Your task to perform on an android device: Search for "macbook pro 15 inch" on bestbuy, select the first entry, and add it to the cart. Image 0: 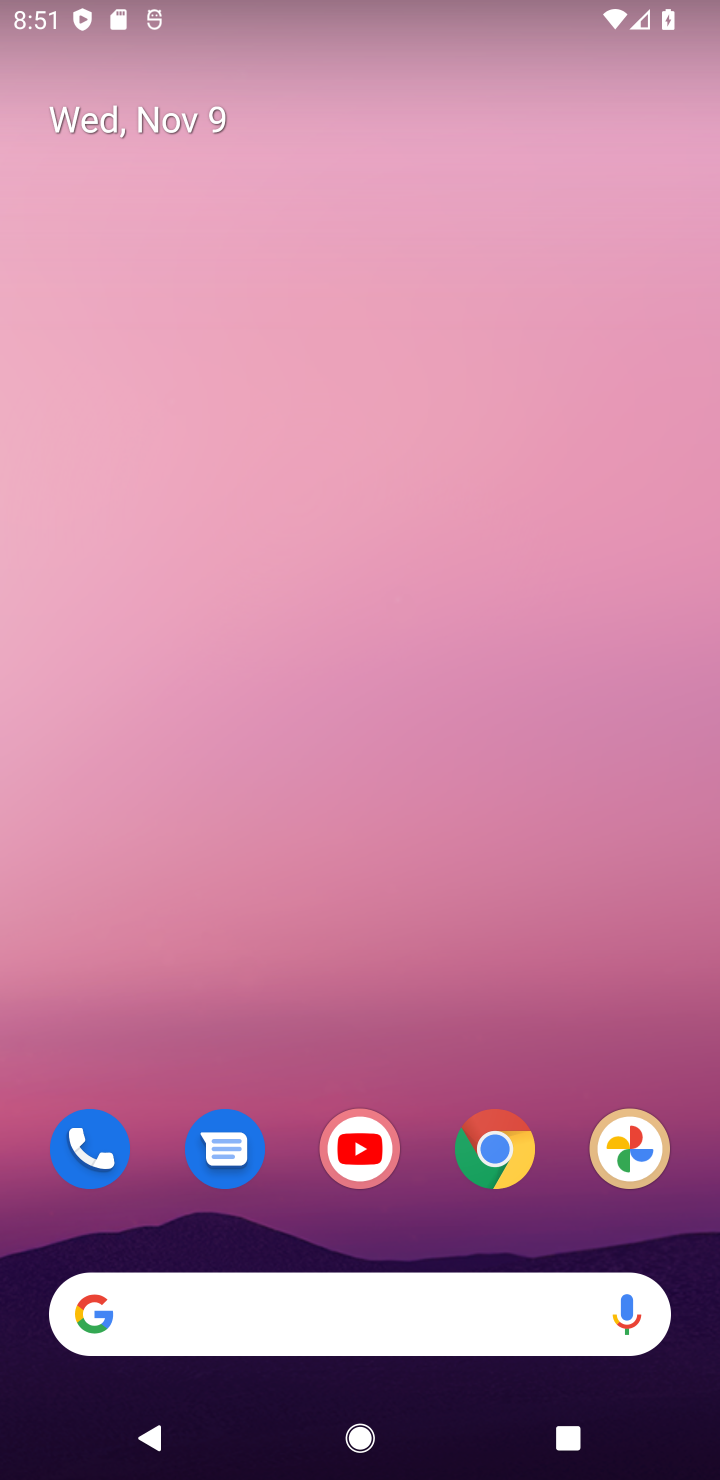
Step 0: click (500, 1144)
Your task to perform on an android device: Search for "macbook pro 15 inch" on bestbuy, select the first entry, and add it to the cart. Image 1: 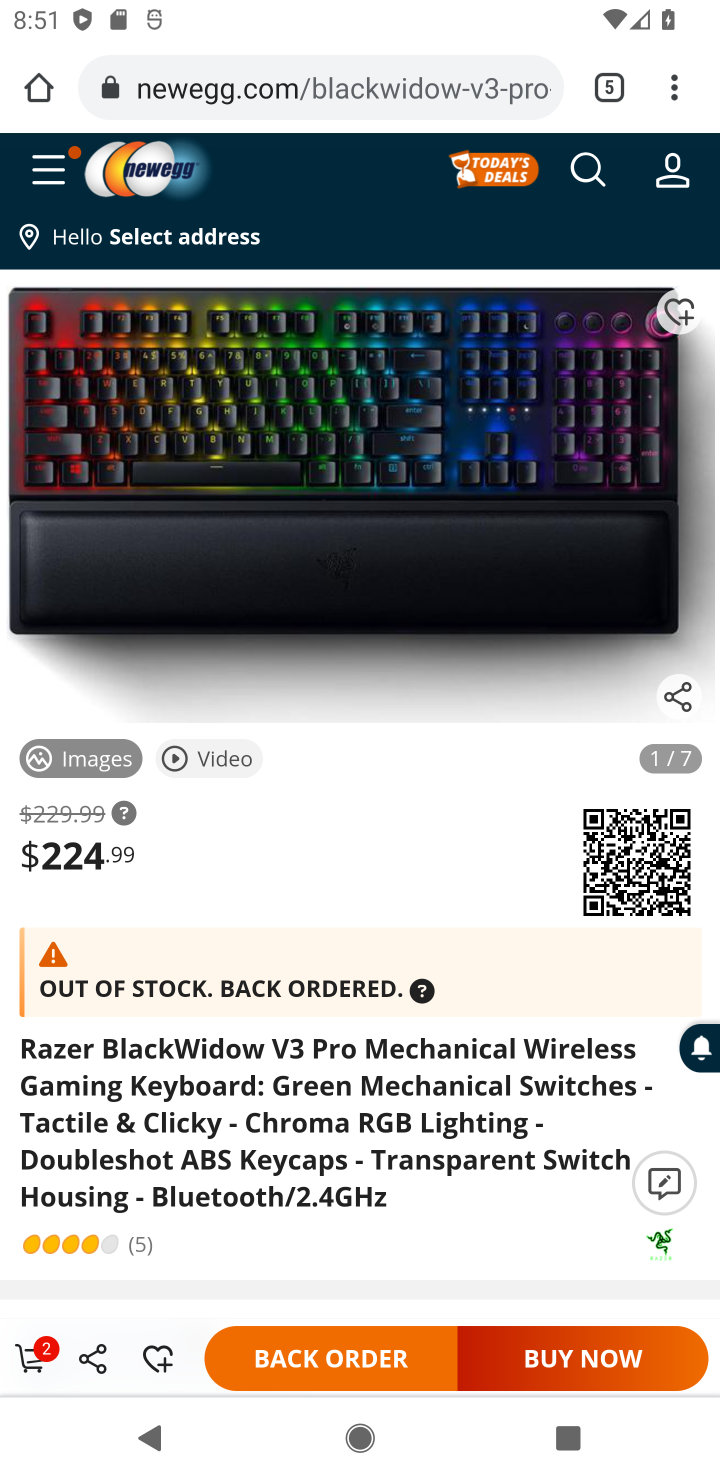
Step 1: click (602, 91)
Your task to perform on an android device: Search for "macbook pro 15 inch" on bestbuy, select the first entry, and add it to the cart. Image 2: 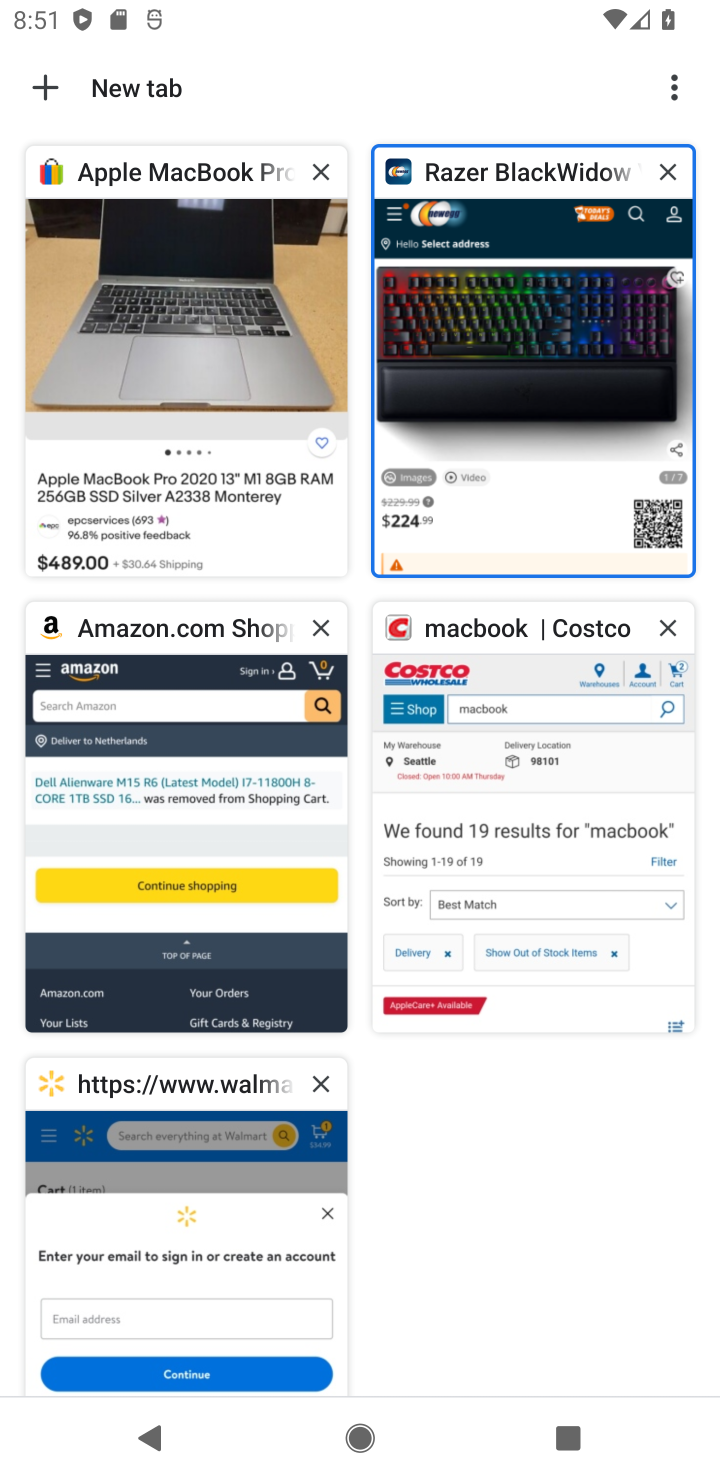
Step 2: click (36, 93)
Your task to perform on an android device: Search for "macbook pro 15 inch" on bestbuy, select the first entry, and add it to the cart. Image 3: 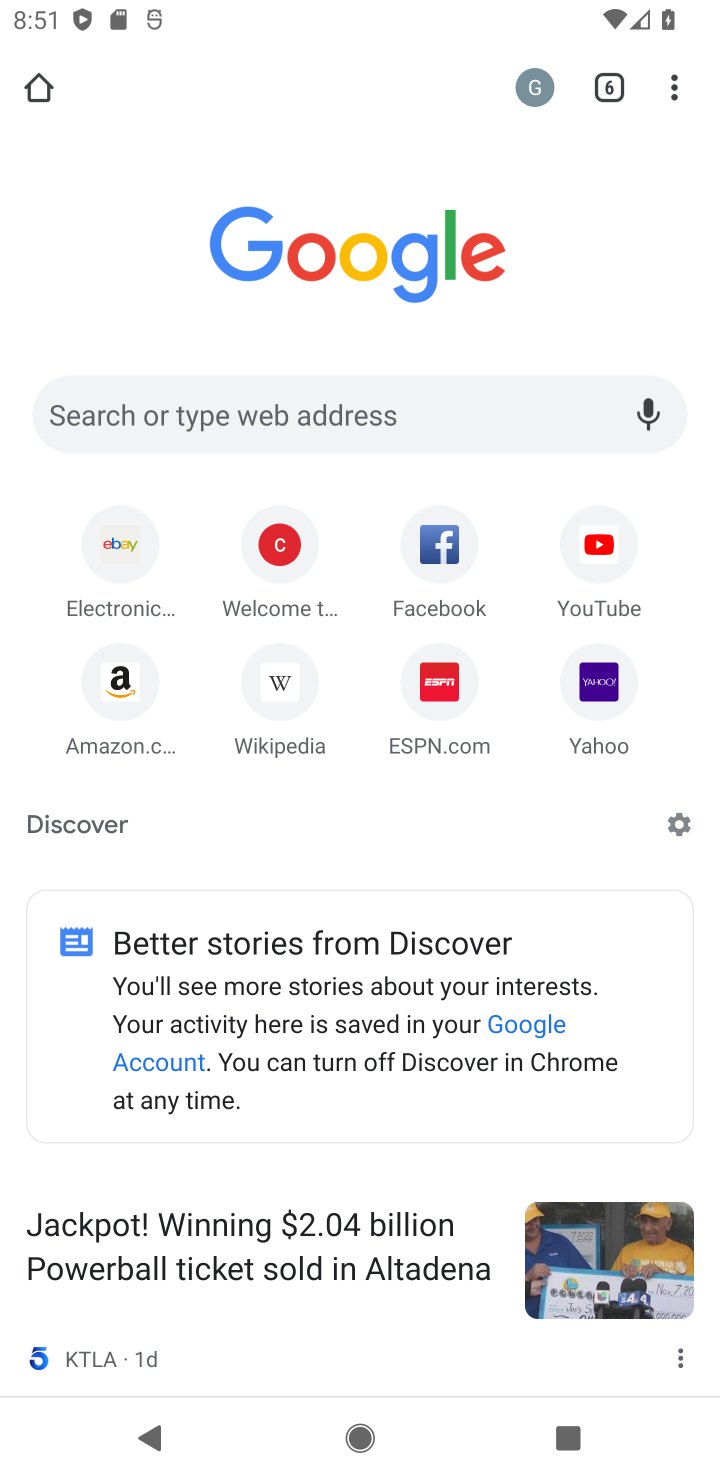
Step 3: click (112, 401)
Your task to perform on an android device: Search for "macbook pro 15 inch" on bestbuy, select the first entry, and add it to the cart. Image 4: 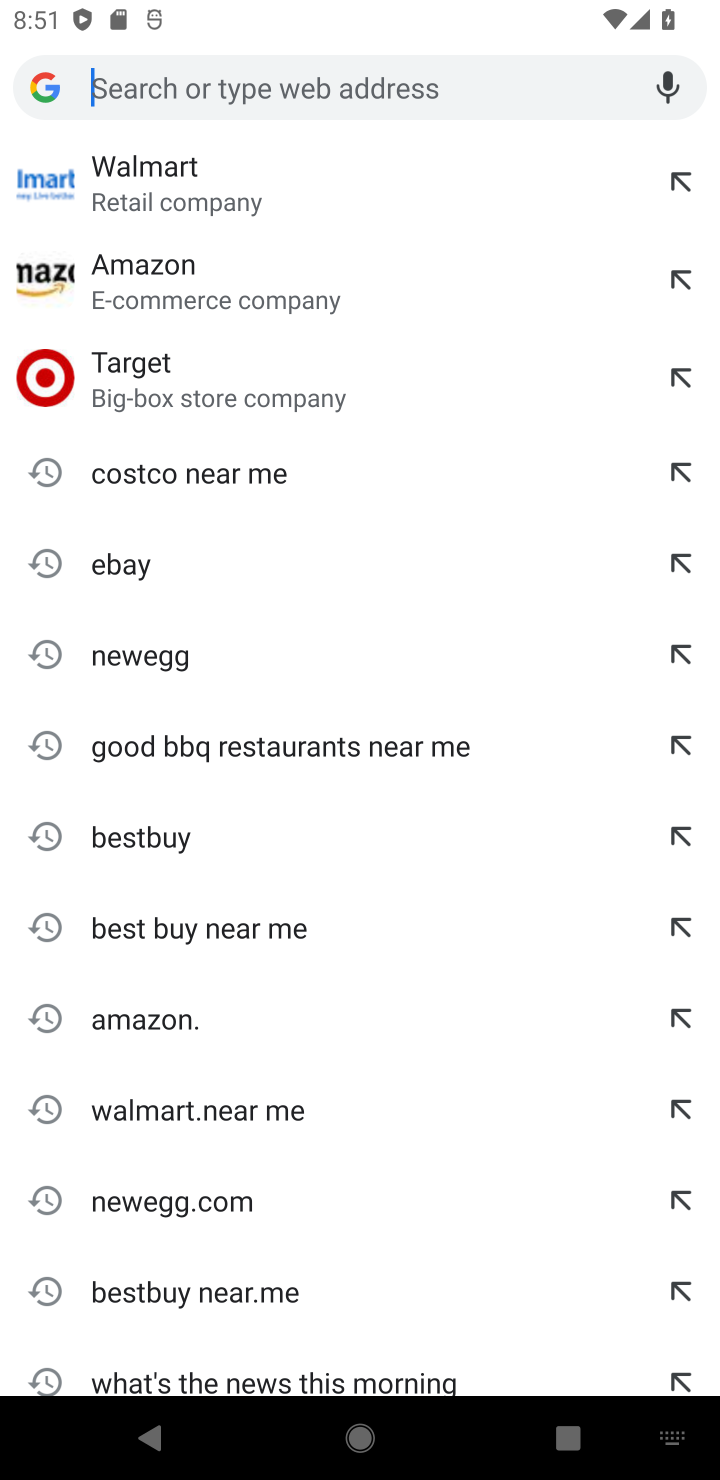
Step 4: click (126, 843)
Your task to perform on an android device: Search for "macbook pro 15 inch" on bestbuy, select the first entry, and add it to the cart. Image 5: 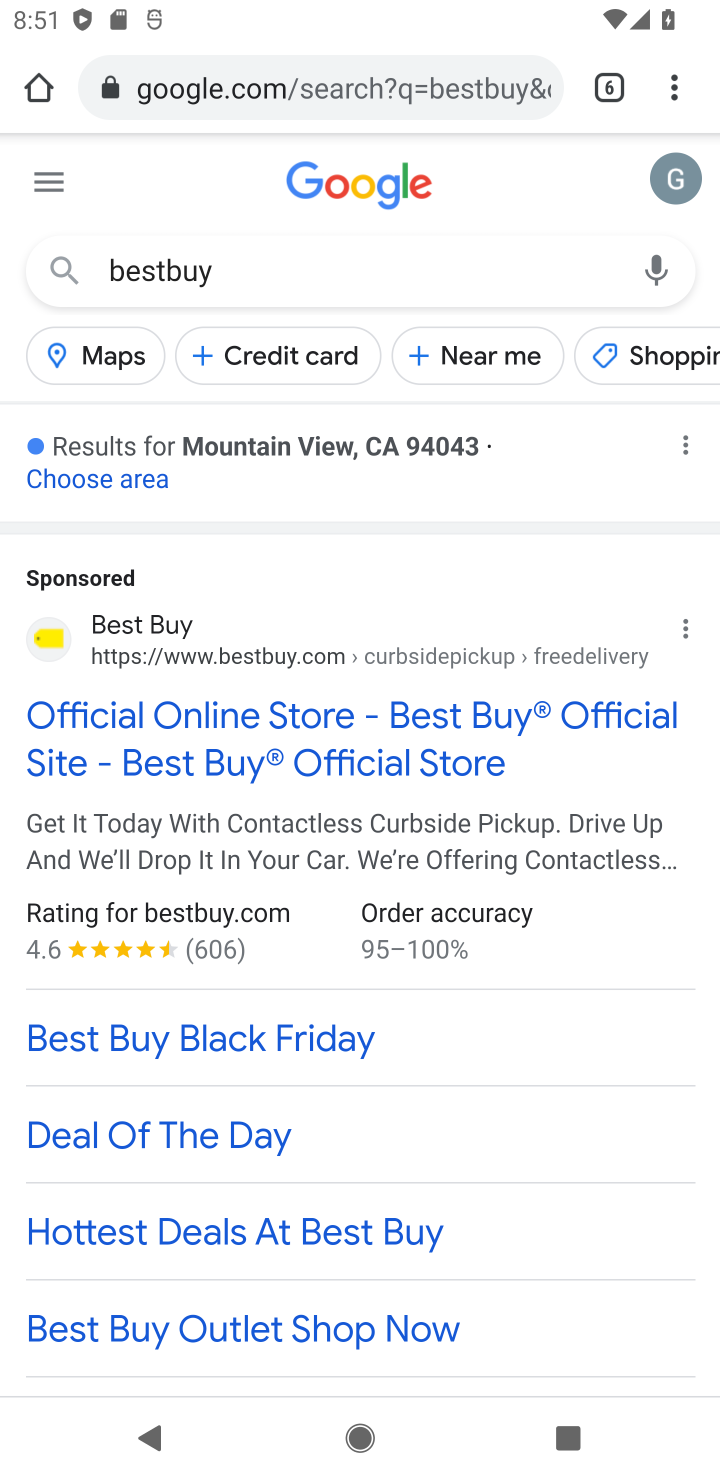
Step 5: click (202, 735)
Your task to perform on an android device: Search for "macbook pro 15 inch" on bestbuy, select the first entry, and add it to the cart. Image 6: 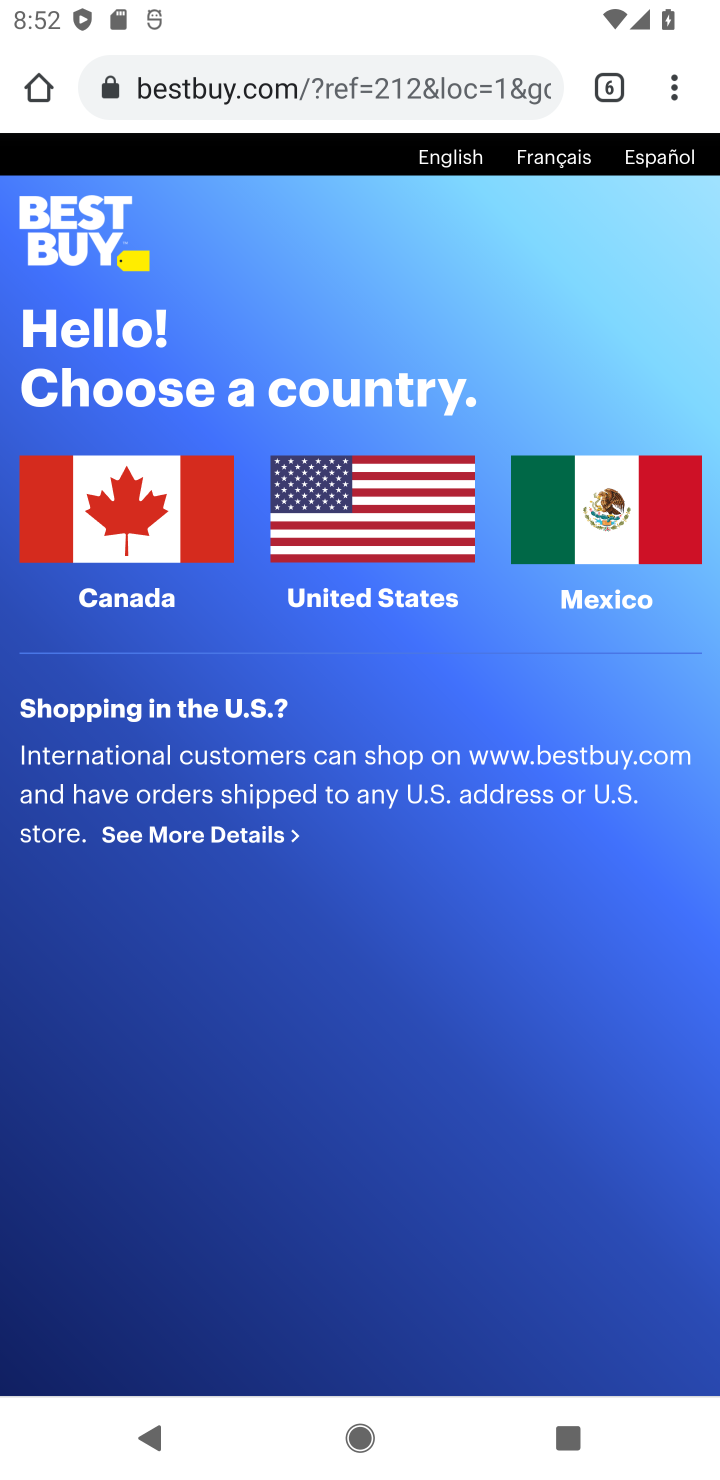
Step 6: click (386, 518)
Your task to perform on an android device: Search for "macbook pro 15 inch" on bestbuy, select the first entry, and add it to the cart. Image 7: 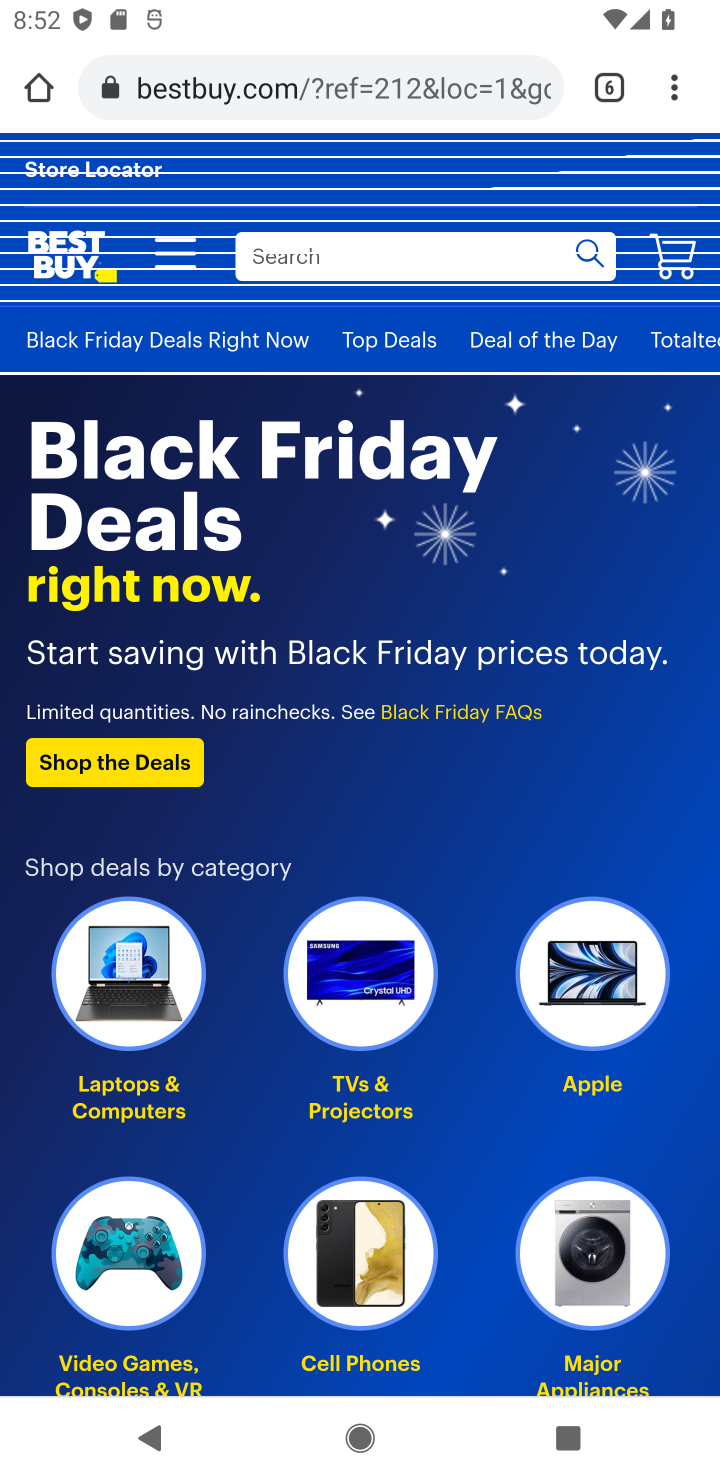
Step 7: click (316, 259)
Your task to perform on an android device: Search for "macbook pro 15 inch" on bestbuy, select the first entry, and add it to the cart. Image 8: 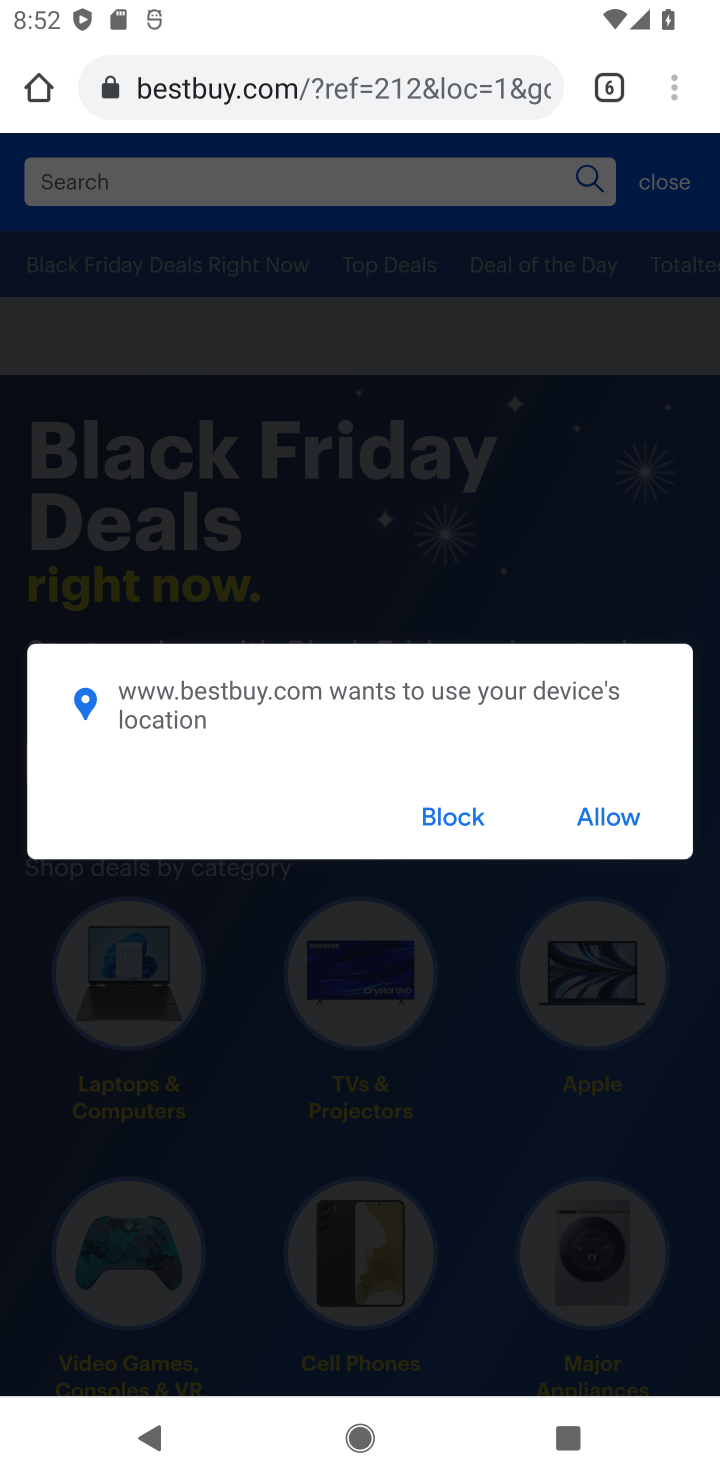
Step 8: type "ma"
Your task to perform on an android device: Search for "macbook pro 15 inch" on bestbuy, select the first entry, and add it to the cart. Image 9: 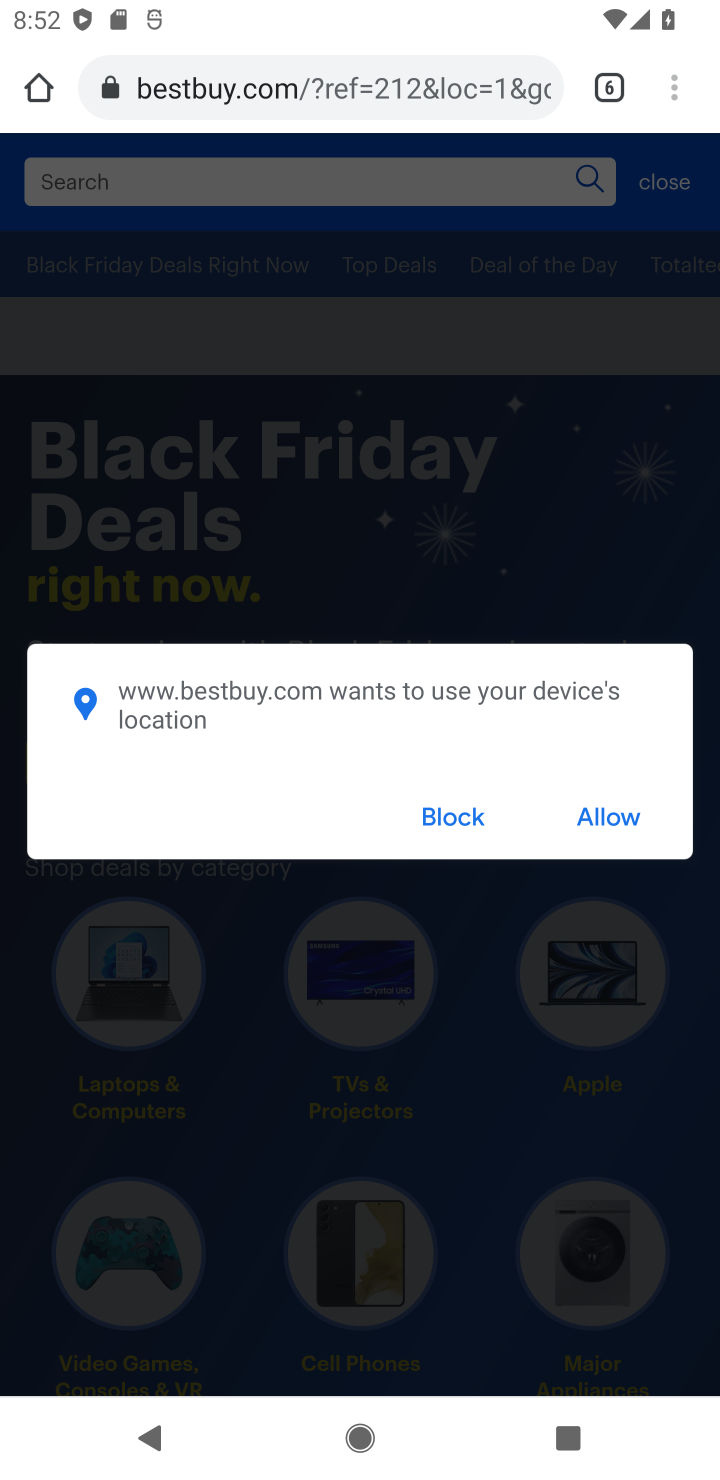
Step 9: click (449, 827)
Your task to perform on an android device: Search for "macbook pro 15 inch" on bestbuy, select the first entry, and add it to the cart. Image 10: 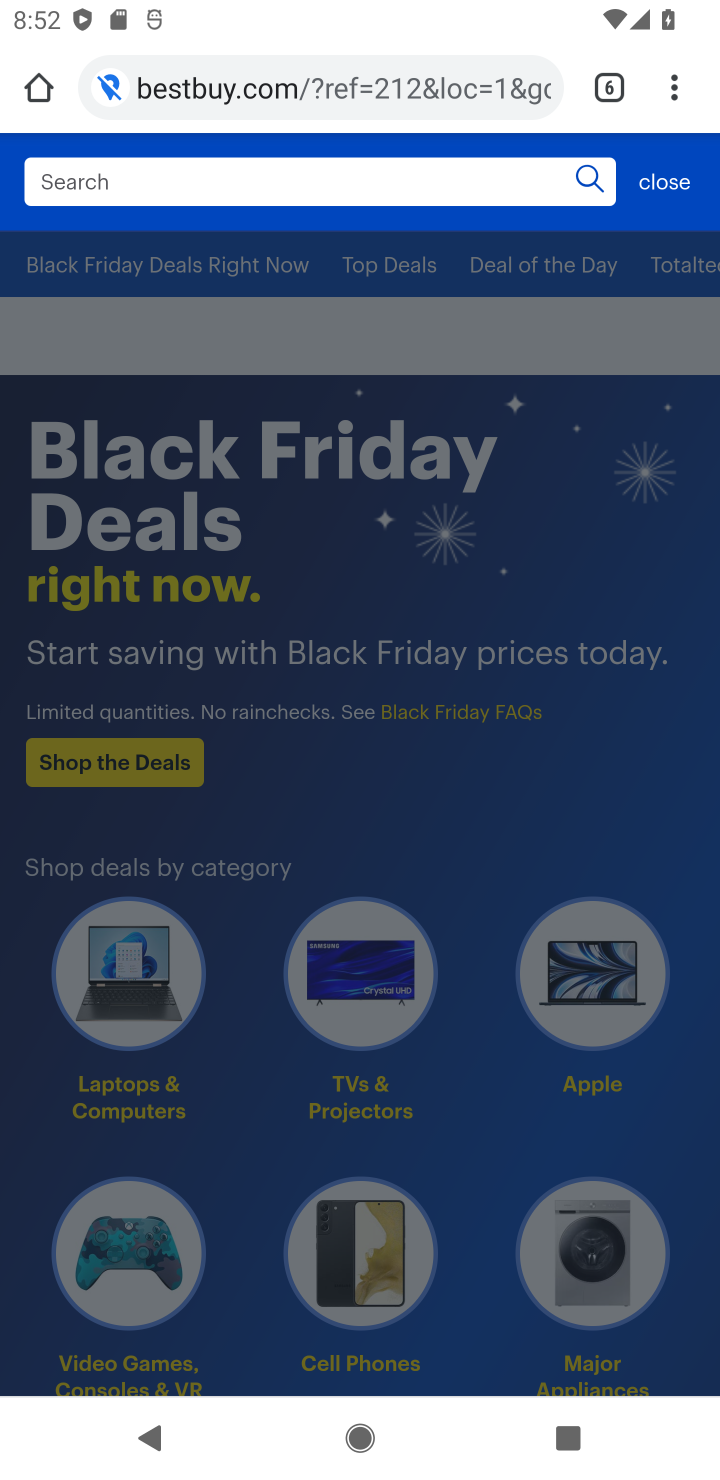
Step 10: click (94, 182)
Your task to perform on an android device: Search for "macbook pro 15 inch" on bestbuy, select the first entry, and add it to the cart. Image 11: 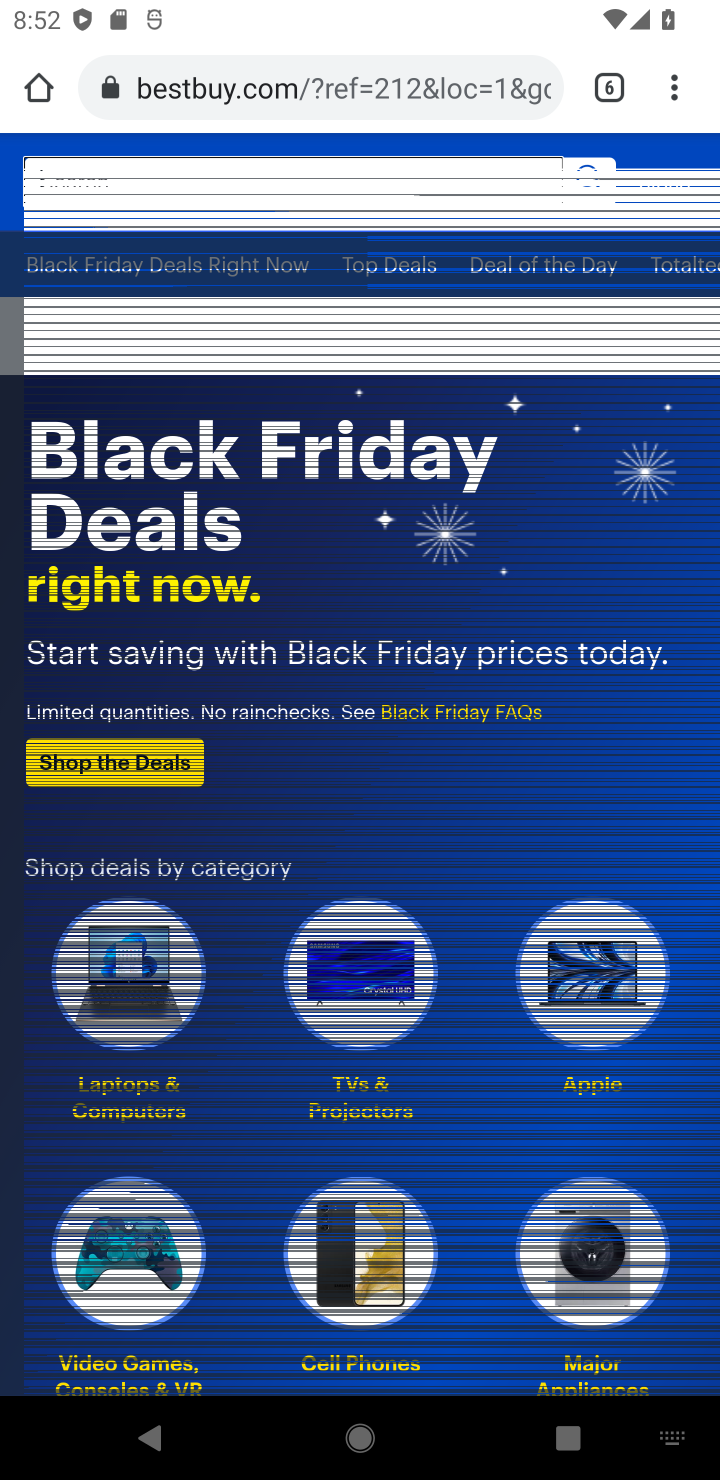
Step 11: type "macbook pro 15 inch"
Your task to perform on an android device: Search for "macbook pro 15 inch" on bestbuy, select the first entry, and add it to the cart. Image 12: 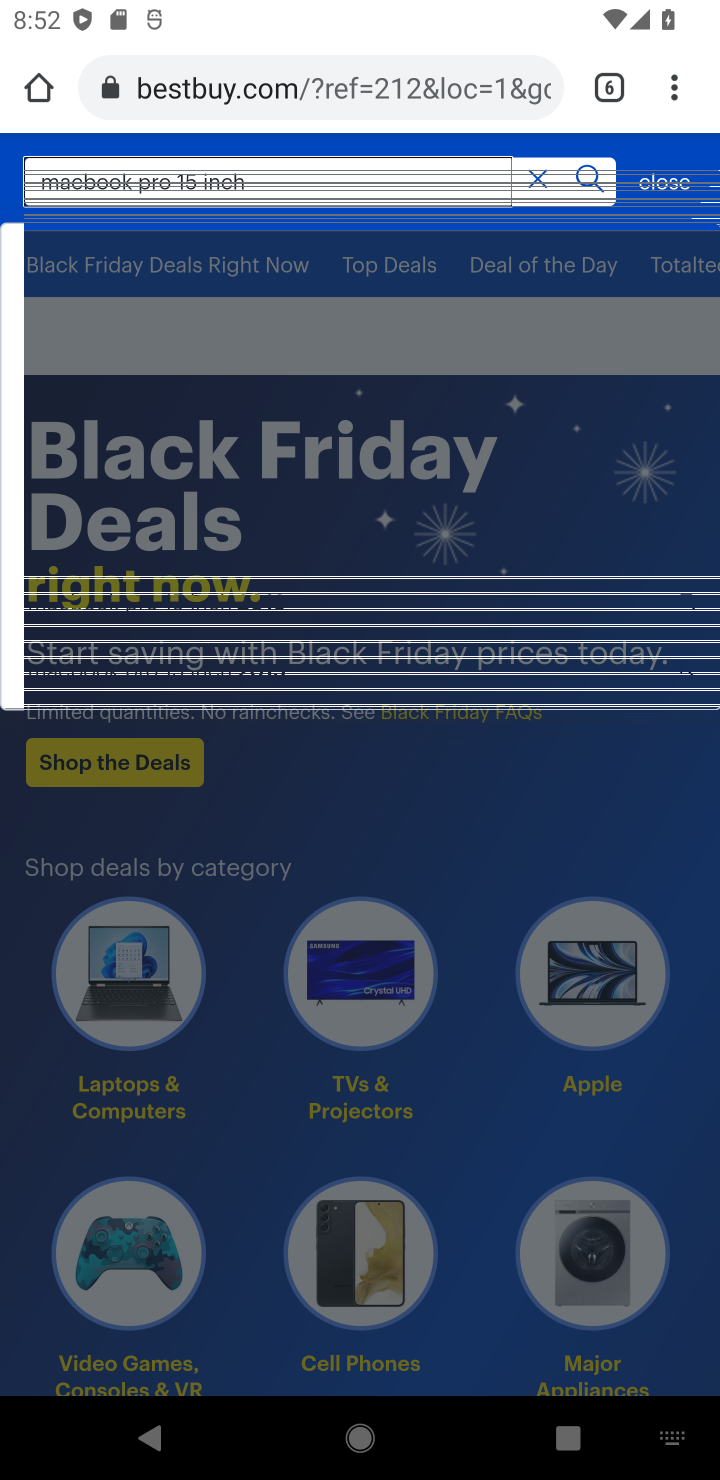
Step 12: click (593, 178)
Your task to perform on an android device: Search for "macbook pro 15 inch" on bestbuy, select the first entry, and add it to the cart. Image 13: 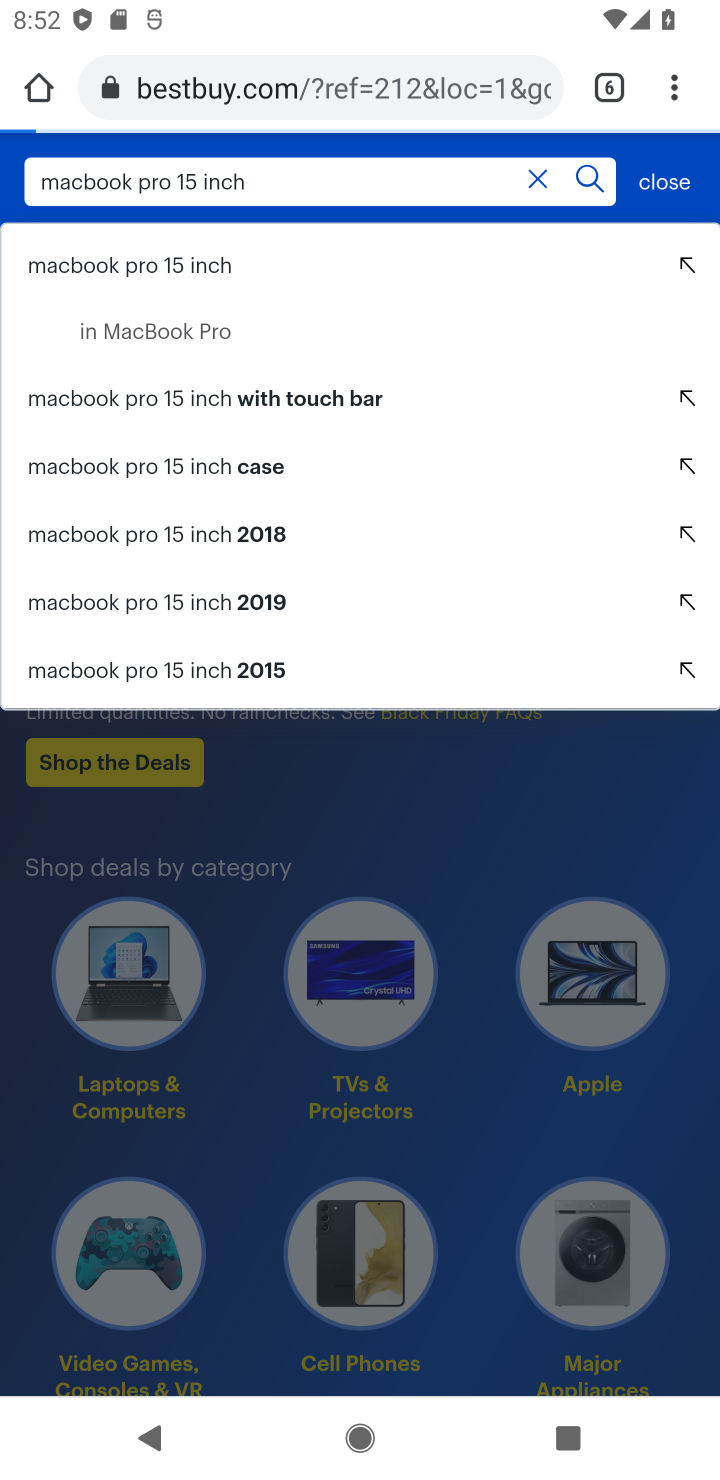
Step 13: click (593, 178)
Your task to perform on an android device: Search for "macbook pro 15 inch" on bestbuy, select the first entry, and add it to the cart. Image 14: 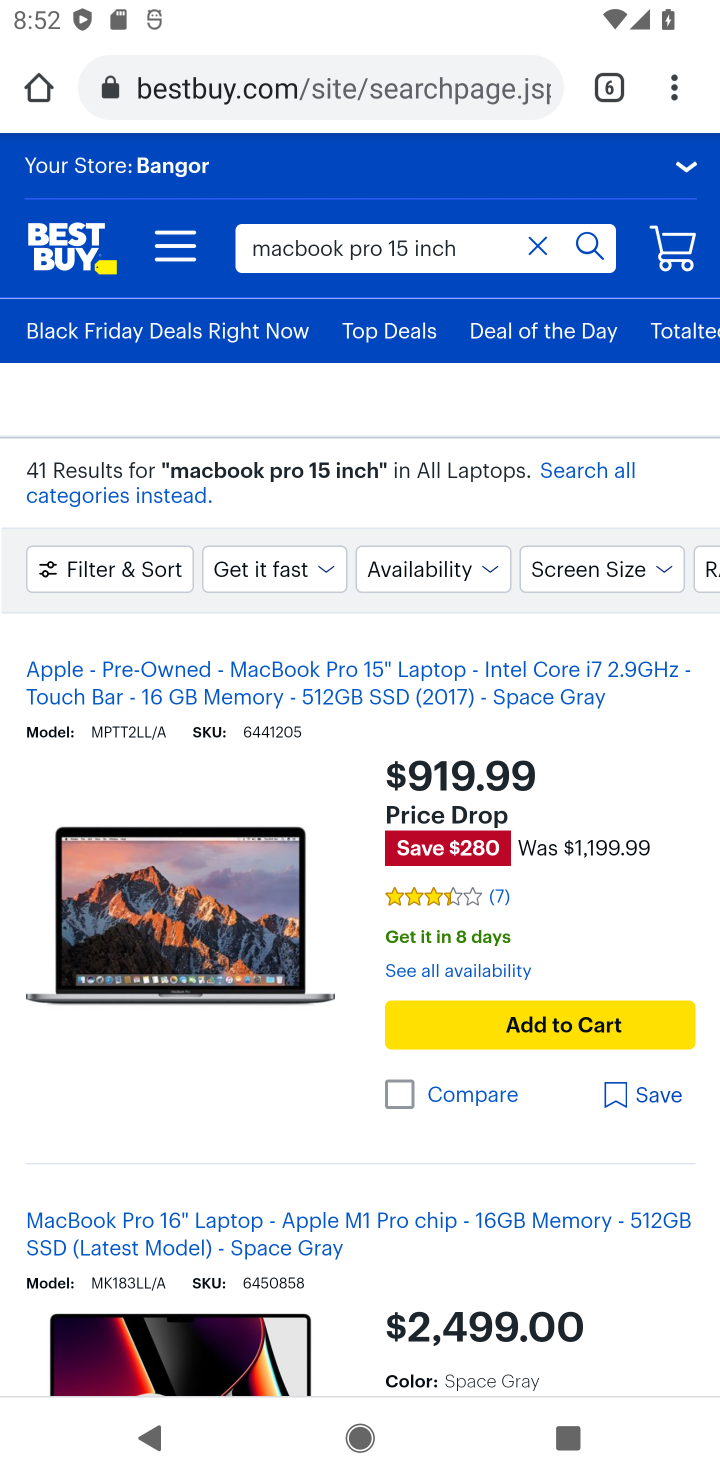
Step 14: click (511, 960)
Your task to perform on an android device: Search for "macbook pro 15 inch" on bestbuy, select the first entry, and add it to the cart. Image 15: 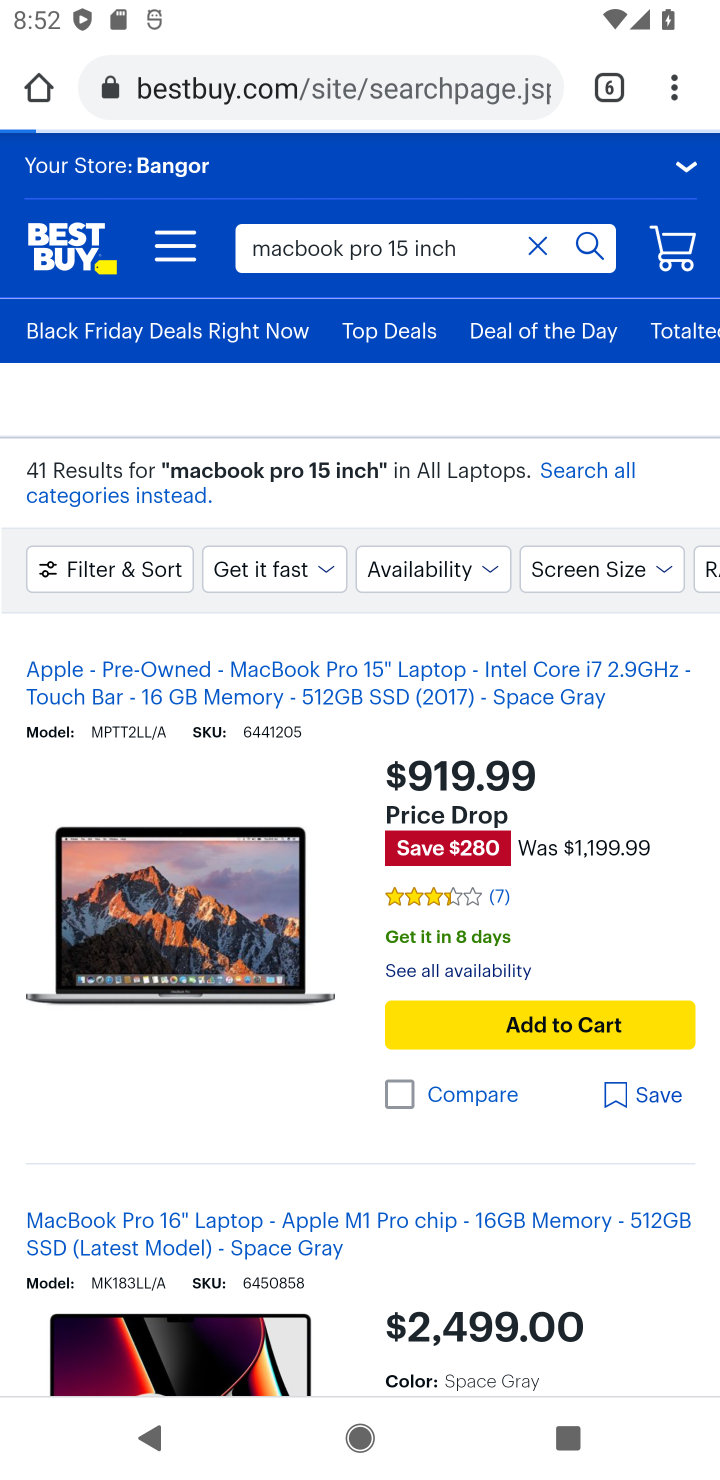
Step 15: click (578, 1005)
Your task to perform on an android device: Search for "macbook pro 15 inch" on bestbuy, select the first entry, and add it to the cart. Image 16: 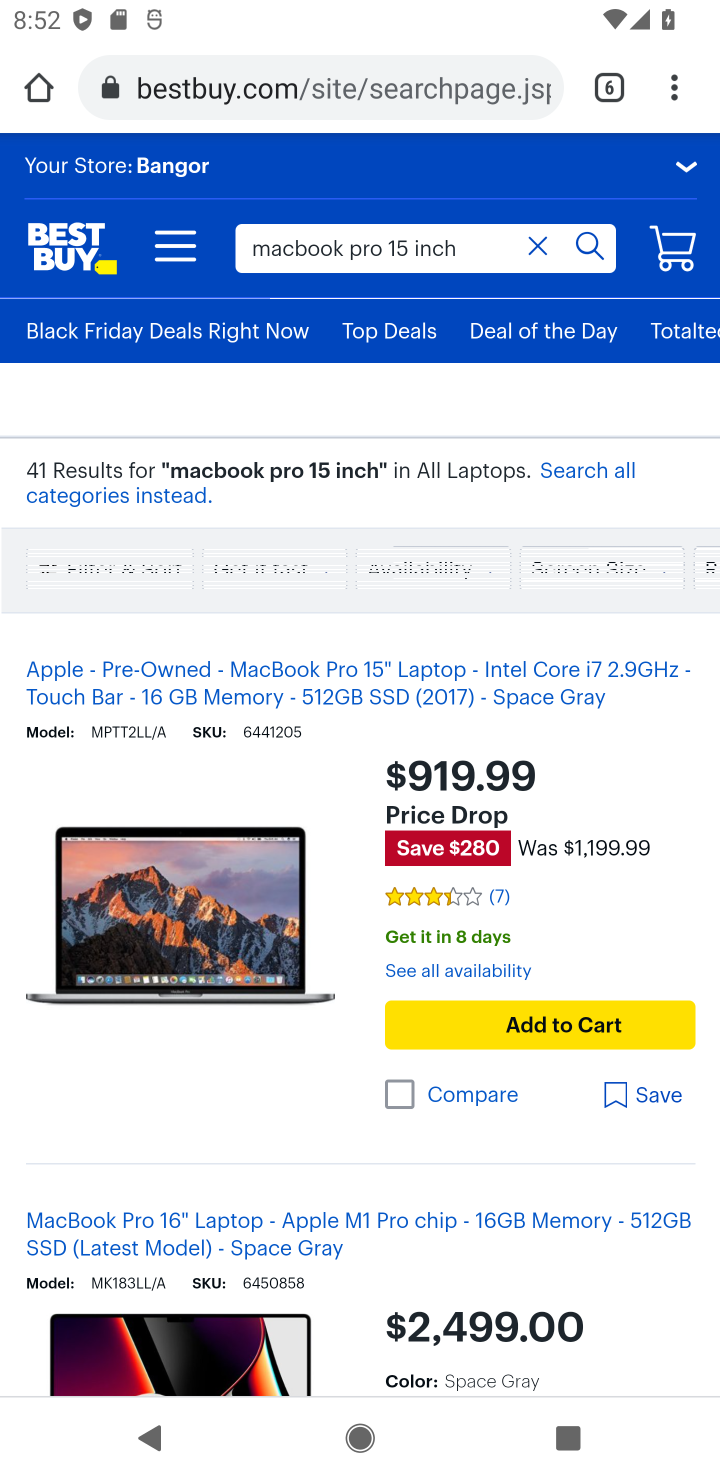
Step 16: click (567, 1025)
Your task to perform on an android device: Search for "macbook pro 15 inch" on bestbuy, select the first entry, and add it to the cart. Image 17: 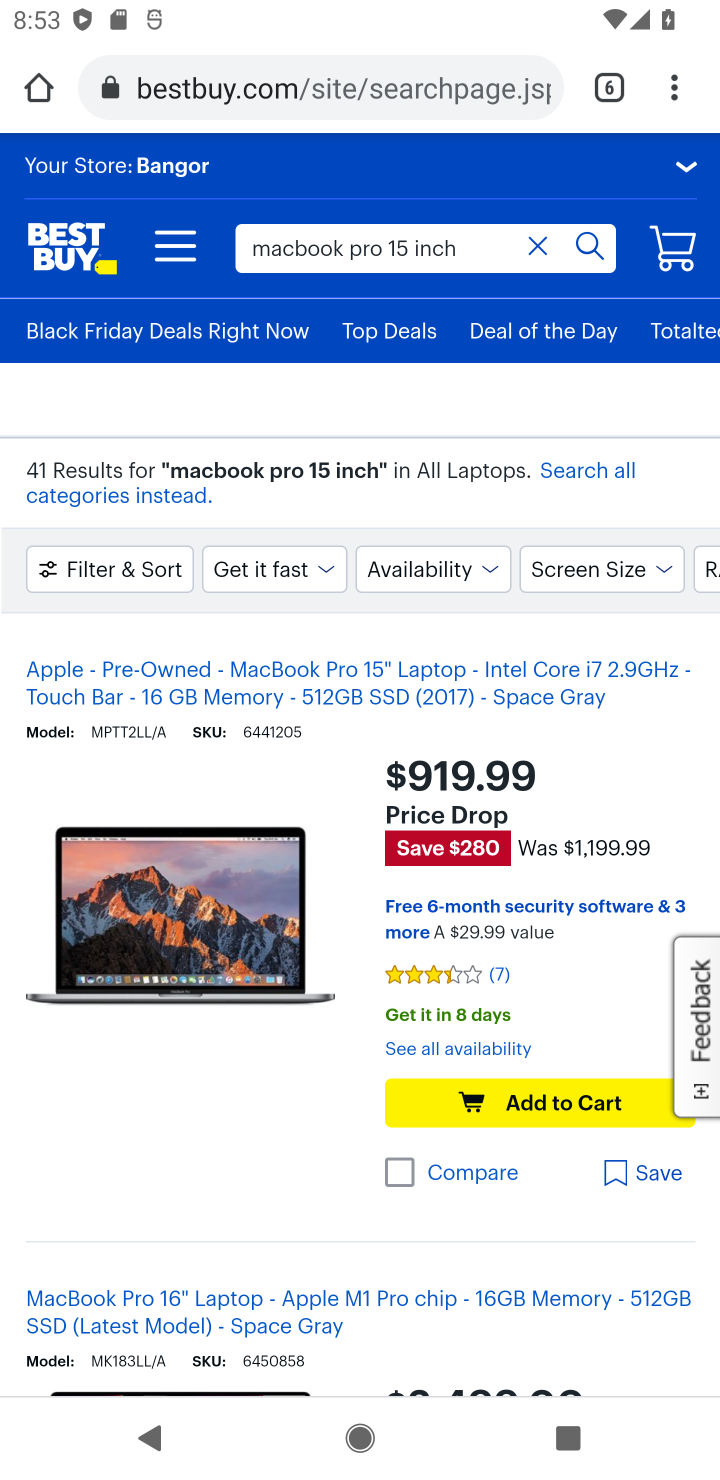
Step 17: click (520, 1098)
Your task to perform on an android device: Search for "macbook pro 15 inch" on bestbuy, select the first entry, and add it to the cart. Image 18: 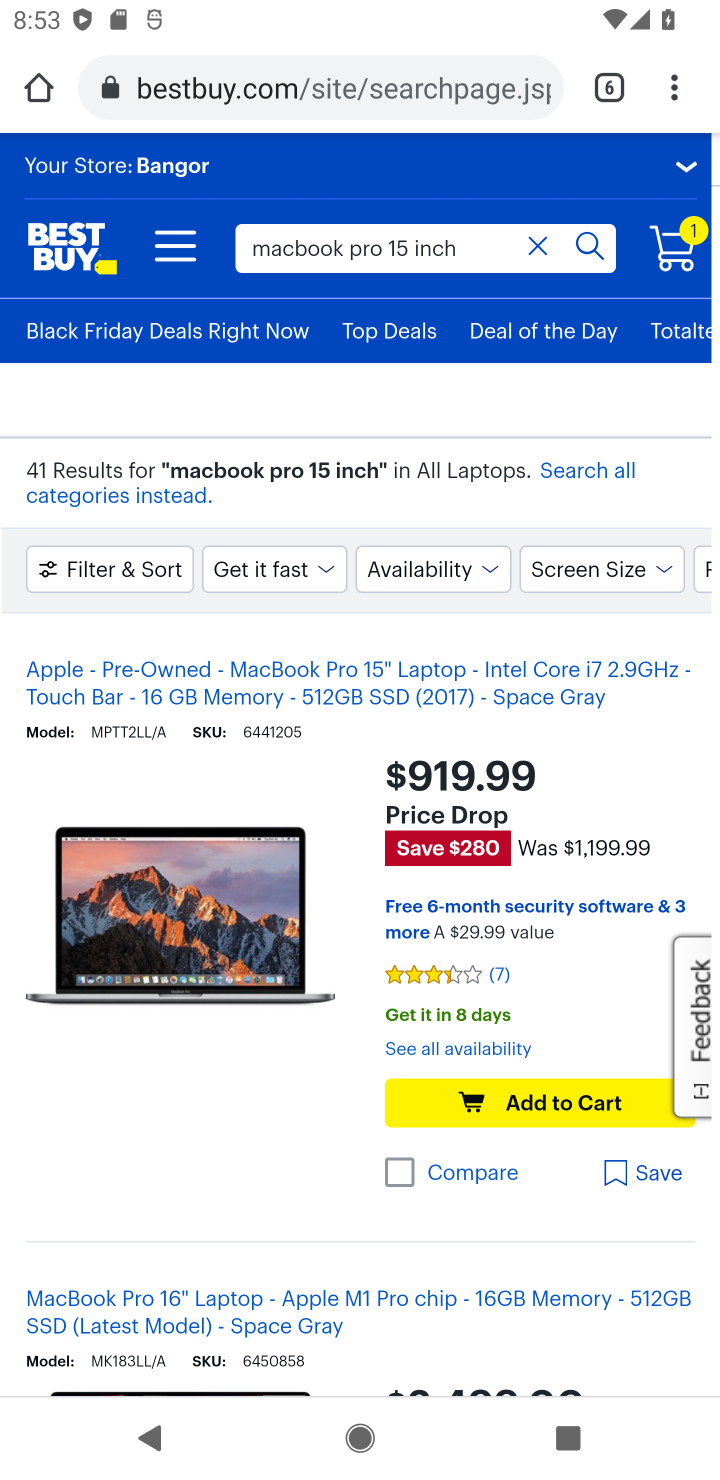
Step 18: task complete